Your task to perform on an android device: Google the capital of Panama Image 0: 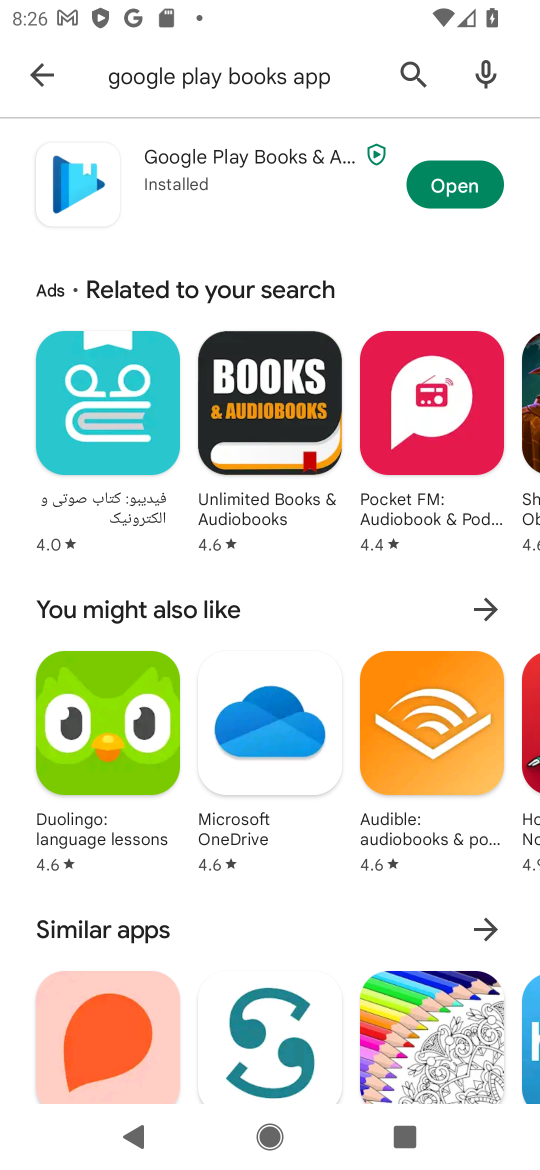
Step 0: press home button
Your task to perform on an android device: Google the capital of Panama Image 1: 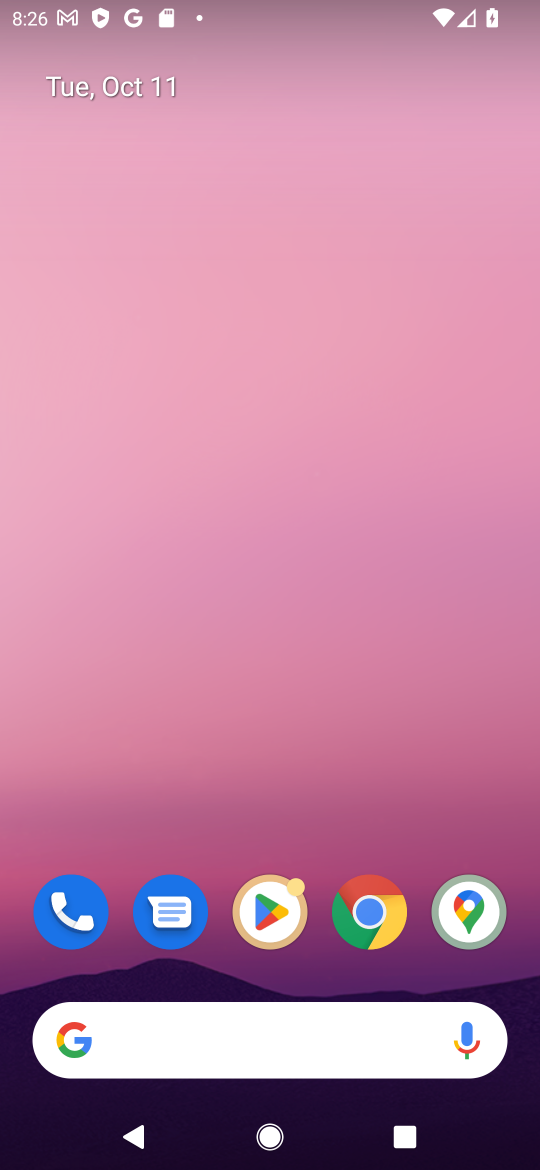
Step 1: click (369, 901)
Your task to perform on an android device: Google the capital of Panama Image 2: 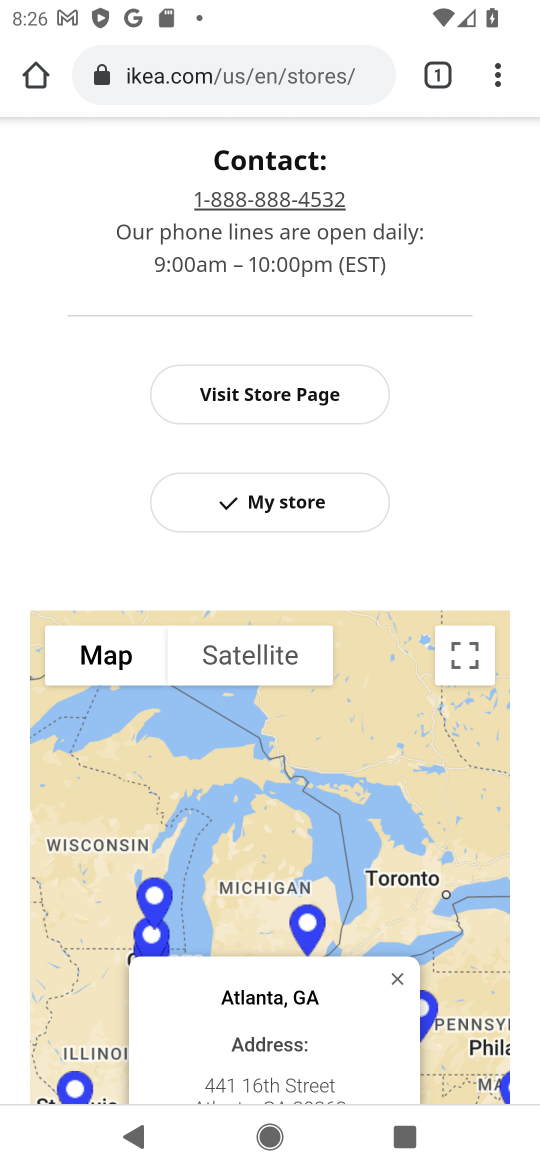
Step 2: click (308, 54)
Your task to perform on an android device: Google the capital of Panama Image 3: 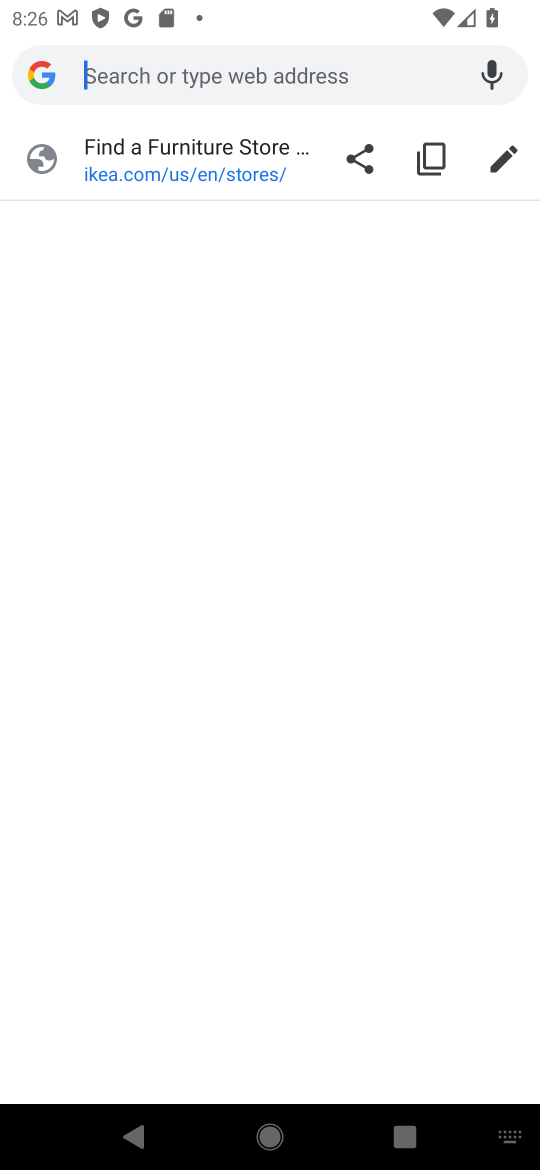
Step 3: type "capital of panama"
Your task to perform on an android device: Google the capital of Panama Image 4: 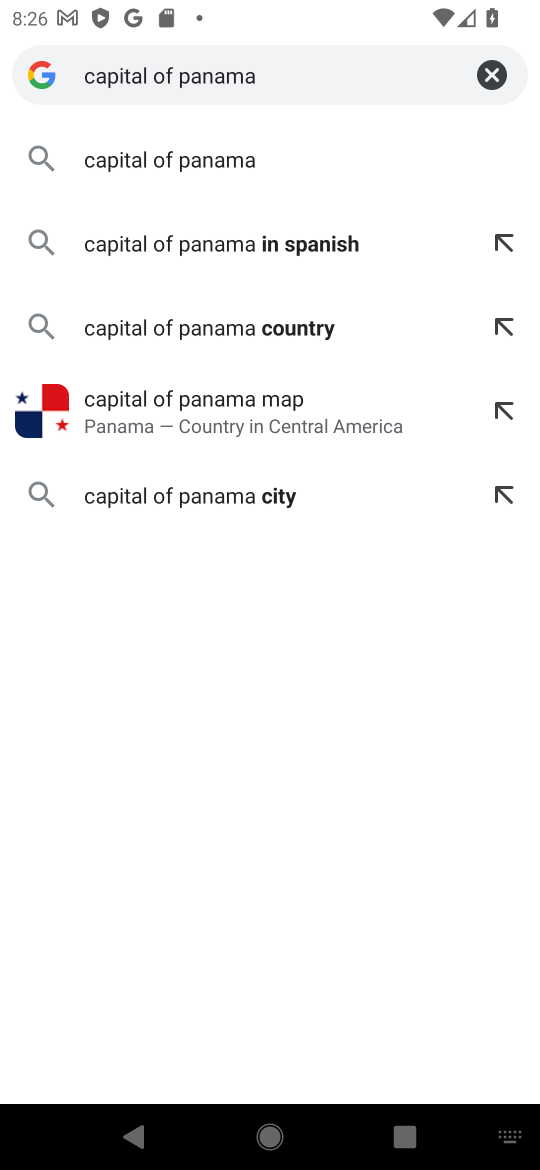
Step 4: click (145, 149)
Your task to perform on an android device: Google the capital of Panama Image 5: 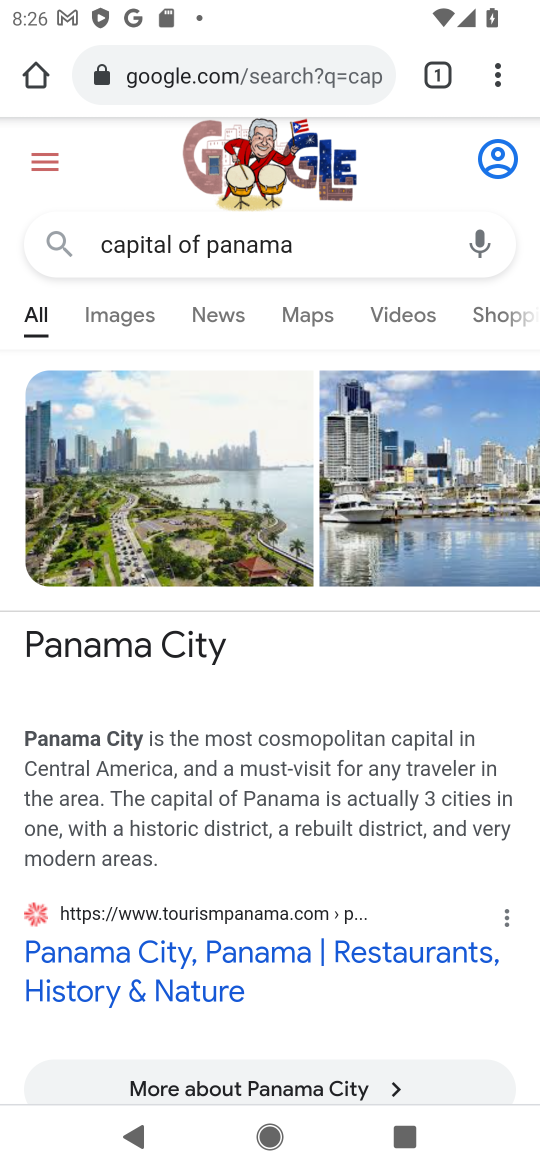
Step 5: task complete